Your task to perform on an android device: Show me popular videos on Youtube Image 0: 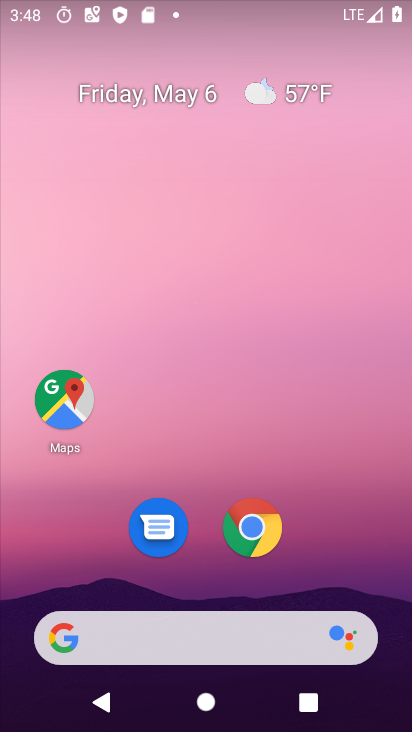
Step 0: drag from (320, 563) to (298, 102)
Your task to perform on an android device: Show me popular videos on Youtube Image 1: 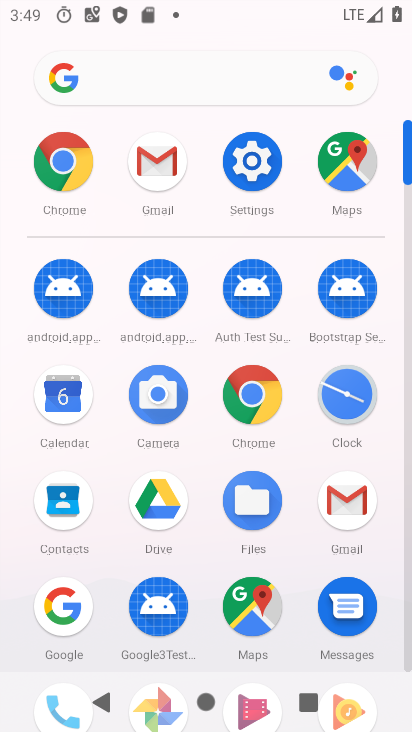
Step 1: drag from (310, 649) to (352, 145)
Your task to perform on an android device: Show me popular videos on Youtube Image 2: 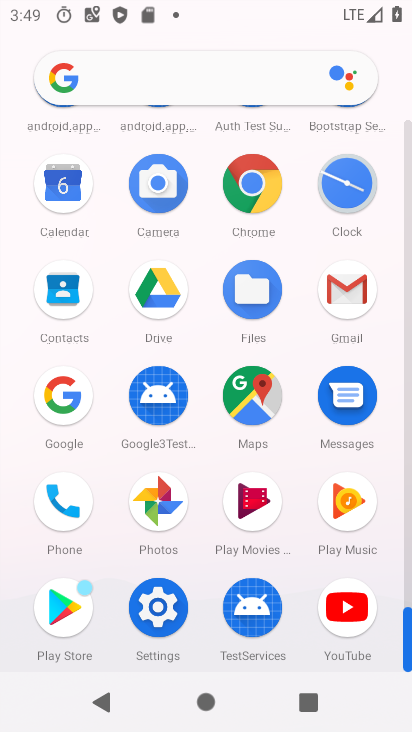
Step 2: click (344, 587)
Your task to perform on an android device: Show me popular videos on Youtube Image 3: 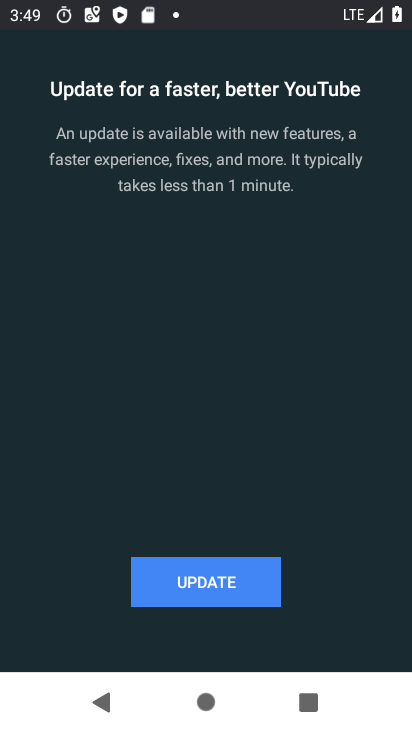
Step 3: click (172, 585)
Your task to perform on an android device: Show me popular videos on Youtube Image 4: 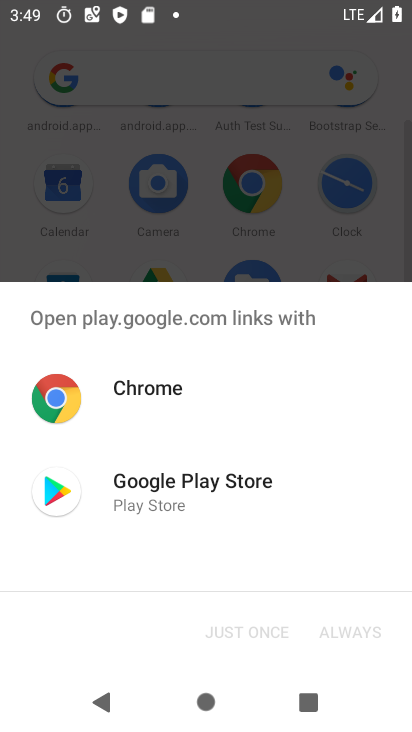
Step 4: click (63, 409)
Your task to perform on an android device: Show me popular videos on Youtube Image 5: 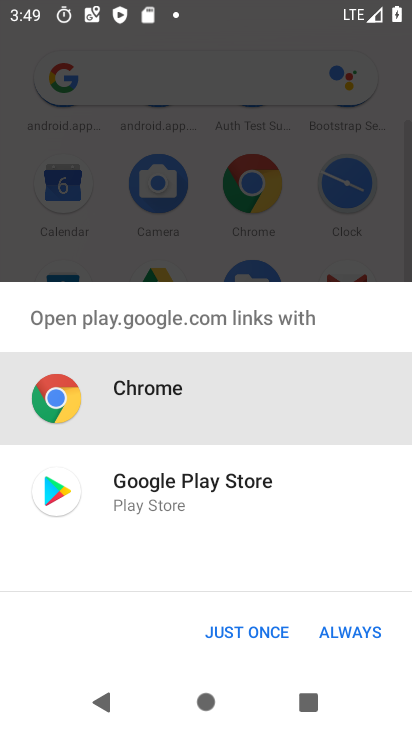
Step 5: click (362, 630)
Your task to perform on an android device: Show me popular videos on Youtube Image 6: 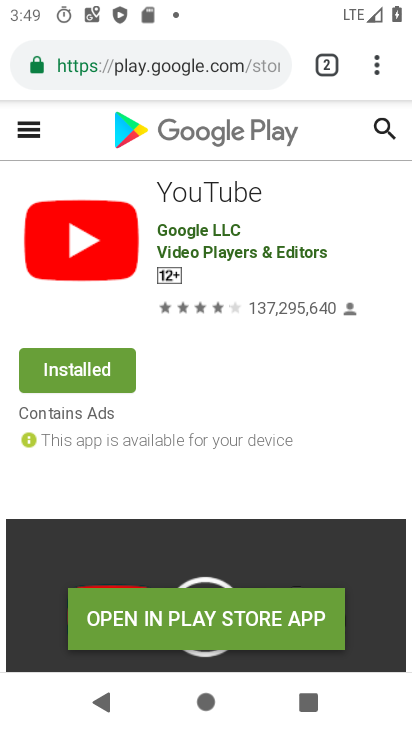
Step 6: drag from (355, 600) to (228, 252)
Your task to perform on an android device: Show me popular videos on Youtube Image 7: 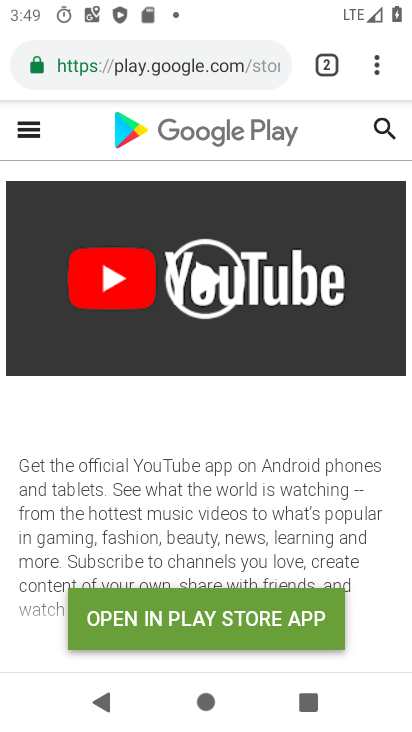
Step 7: drag from (212, 495) to (219, 170)
Your task to perform on an android device: Show me popular videos on Youtube Image 8: 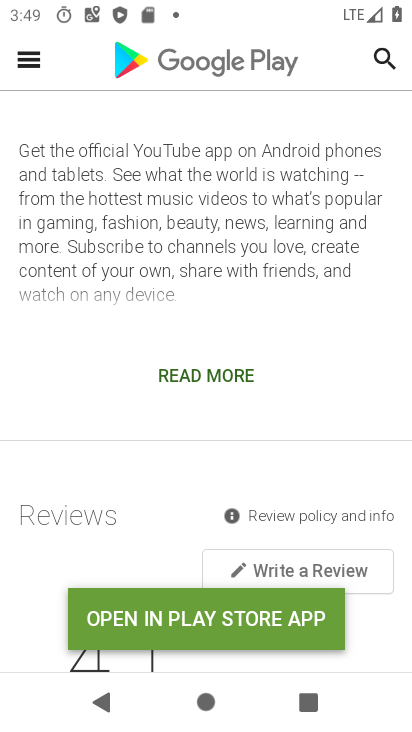
Step 8: drag from (224, 443) to (269, 155)
Your task to perform on an android device: Show me popular videos on Youtube Image 9: 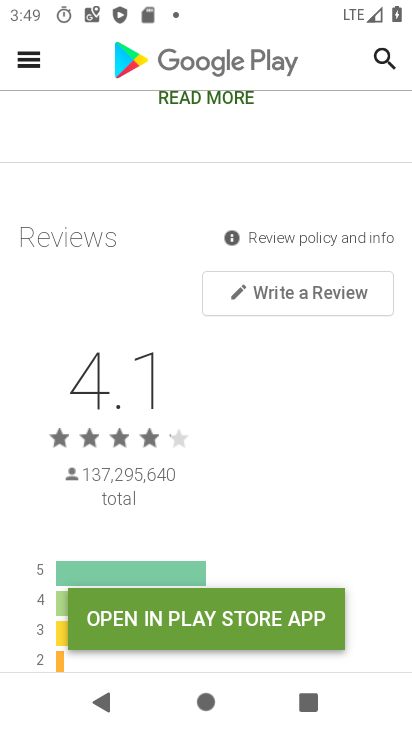
Step 9: drag from (242, 512) to (252, 185)
Your task to perform on an android device: Show me popular videos on Youtube Image 10: 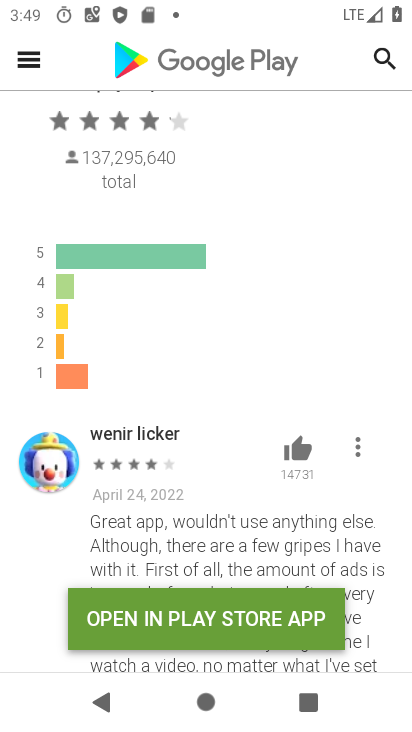
Step 10: drag from (273, 260) to (365, 674)
Your task to perform on an android device: Show me popular videos on Youtube Image 11: 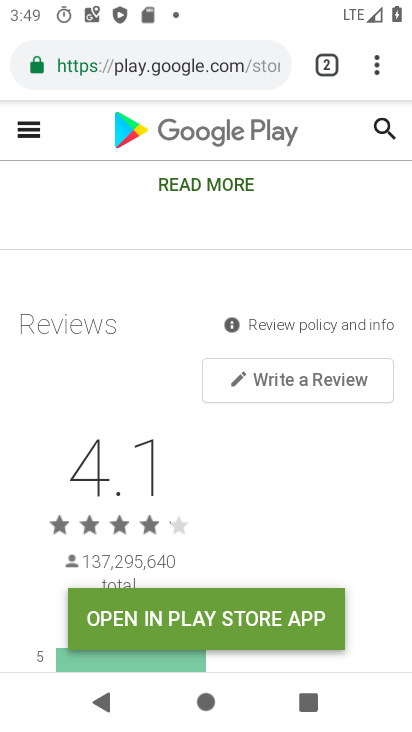
Step 11: drag from (271, 255) to (298, 687)
Your task to perform on an android device: Show me popular videos on Youtube Image 12: 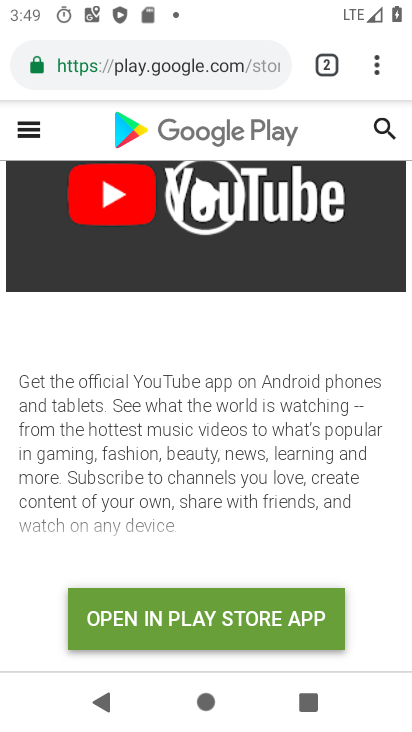
Step 12: drag from (273, 422) to (253, 729)
Your task to perform on an android device: Show me popular videos on Youtube Image 13: 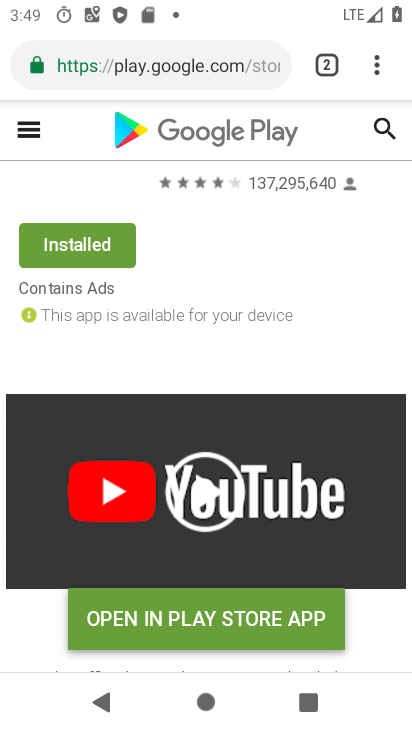
Step 13: click (110, 504)
Your task to perform on an android device: Show me popular videos on Youtube Image 14: 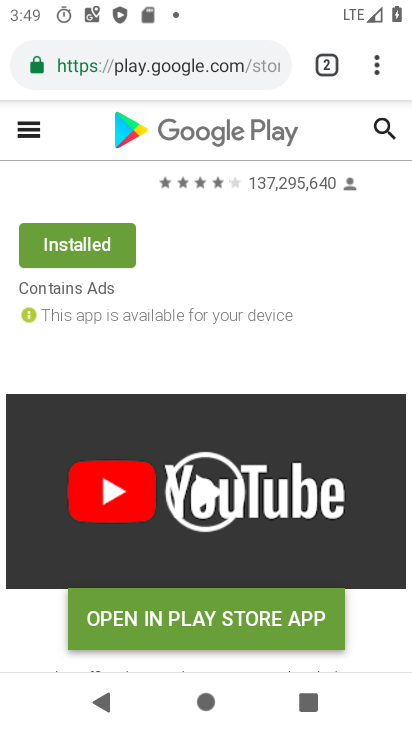
Step 14: click (111, 502)
Your task to perform on an android device: Show me popular videos on Youtube Image 15: 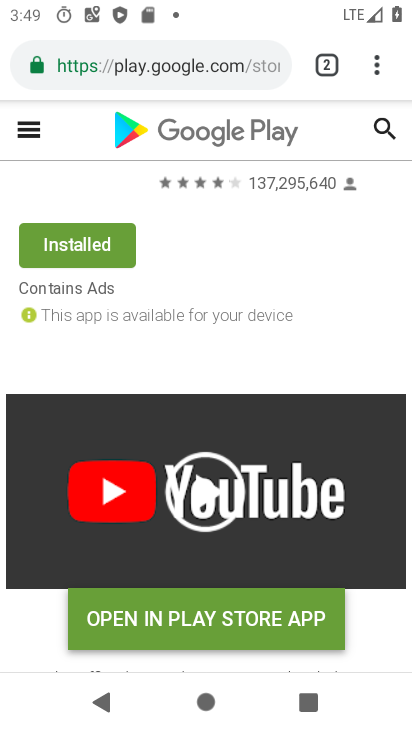
Step 15: click (201, 618)
Your task to perform on an android device: Show me popular videos on Youtube Image 16: 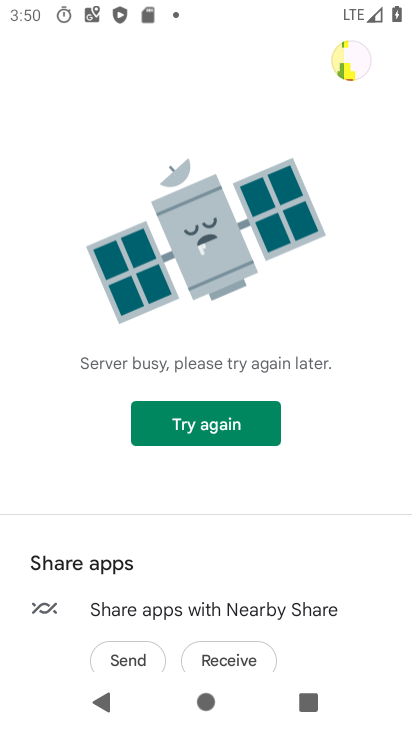
Step 16: press back button
Your task to perform on an android device: Show me popular videos on Youtube Image 17: 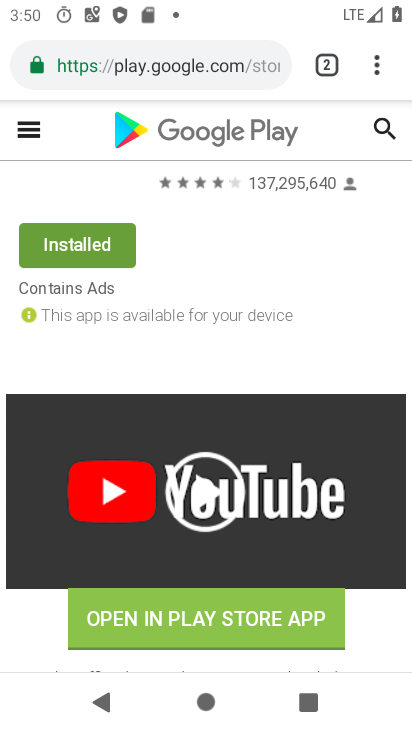
Step 17: drag from (188, 472) to (213, 240)
Your task to perform on an android device: Show me popular videos on Youtube Image 18: 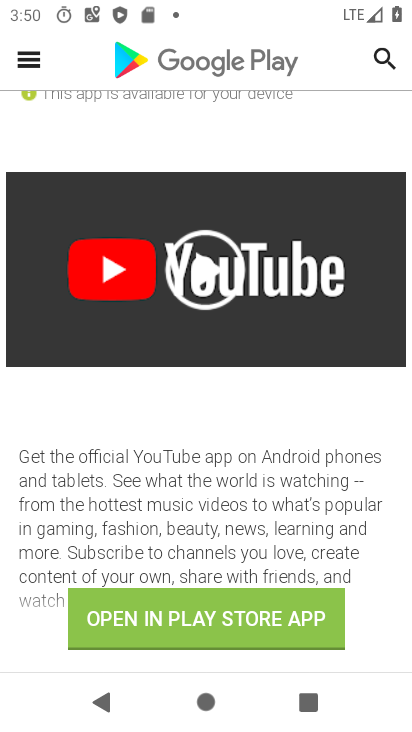
Step 18: drag from (271, 541) to (256, 251)
Your task to perform on an android device: Show me popular videos on Youtube Image 19: 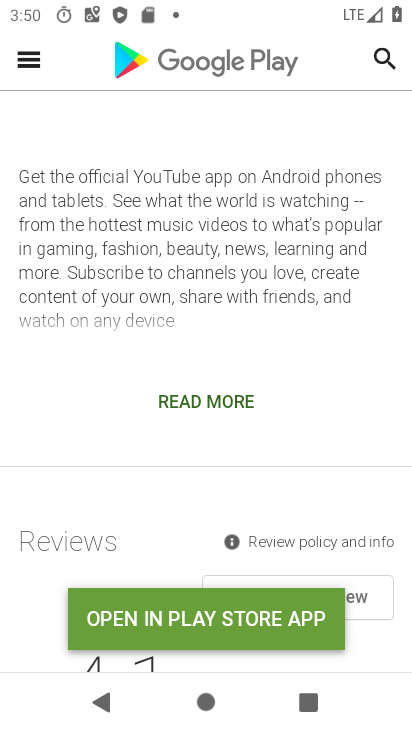
Step 19: click (196, 405)
Your task to perform on an android device: Show me popular videos on Youtube Image 20: 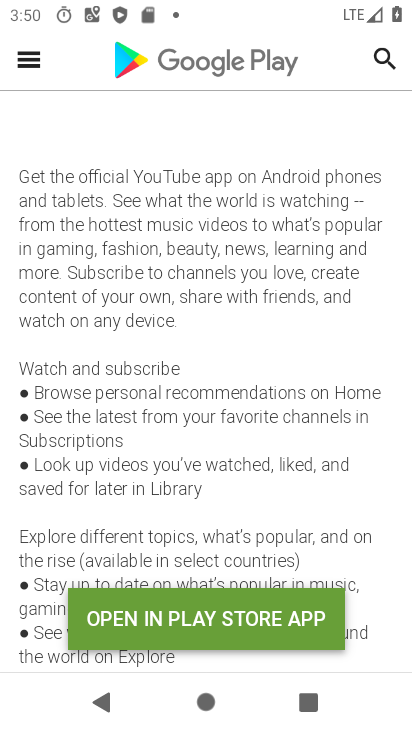
Step 20: task complete